Your task to perform on an android device: check storage Image 0: 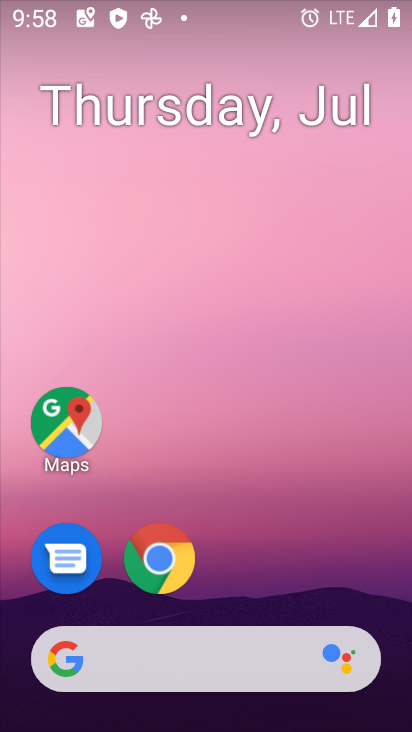
Step 0: drag from (344, 594) to (366, 126)
Your task to perform on an android device: check storage Image 1: 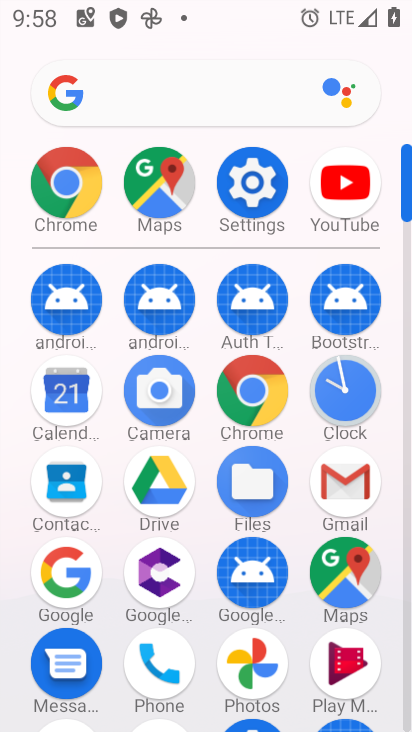
Step 1: click (260, 183)
Your task to perform on an android device: check storage Image 2: 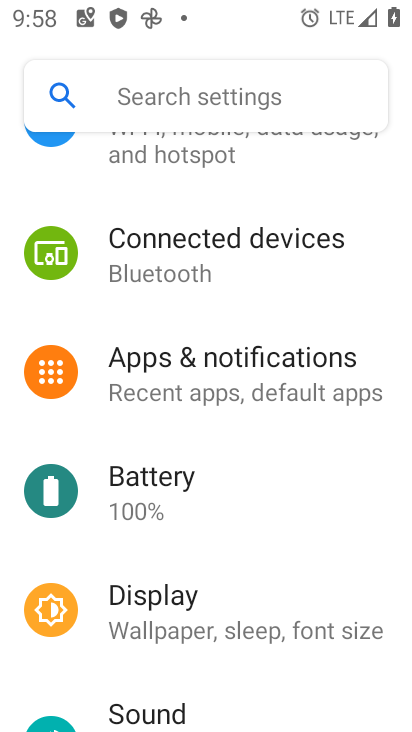
Step 2: drag from (325, 199) to (329, 289)
Your task to perform on an android device: check storage Image 3: 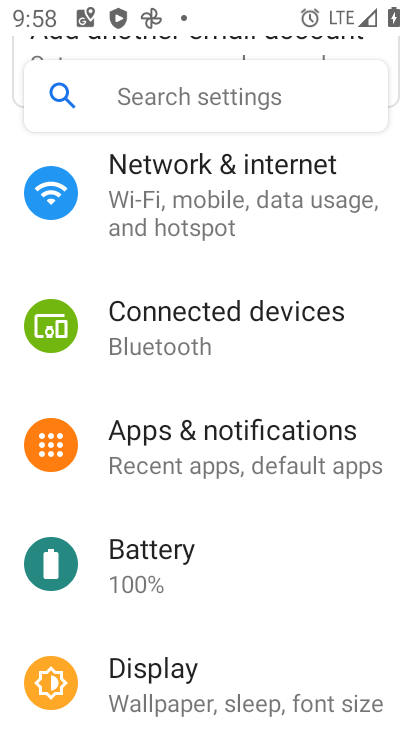
Step 3: drag from (346, 213) to (353, 295)
Your task to perform on an android device: check storage Image 4: 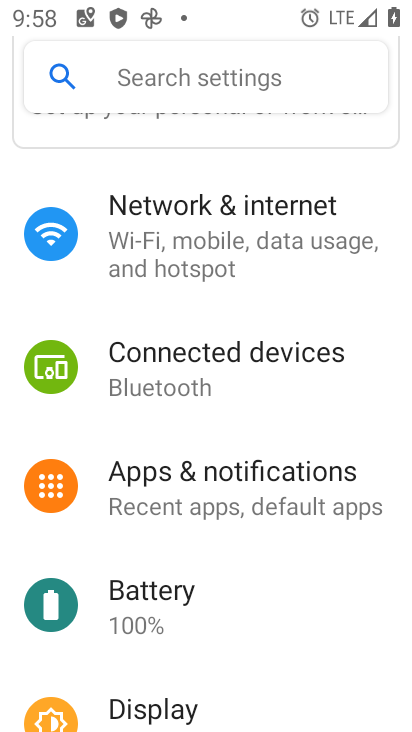
Step 4: drag from (321, 543) to (329, 474)
Your task to perform on an android device: check storage Image 5: 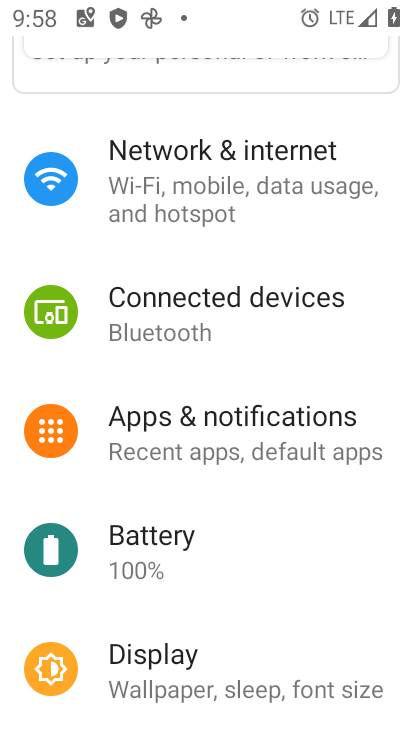
Step 5: drag from (313, 572) to (320, 499)
Your task to perform on an android device: check storage Image 6: 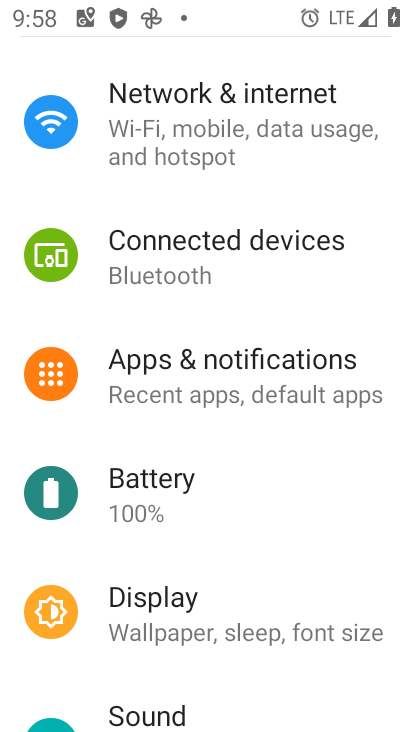
Step 6: drag from (314, 561) to (319, 463)
Your task to perform on an android device: check storage Image 7: 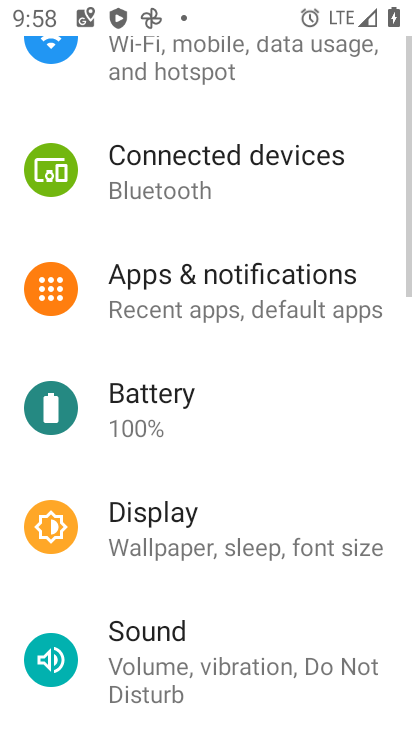
Step 7: drag from (311, 589) to (316, 535)
Your task to perform on an android device: check storage Image 8: 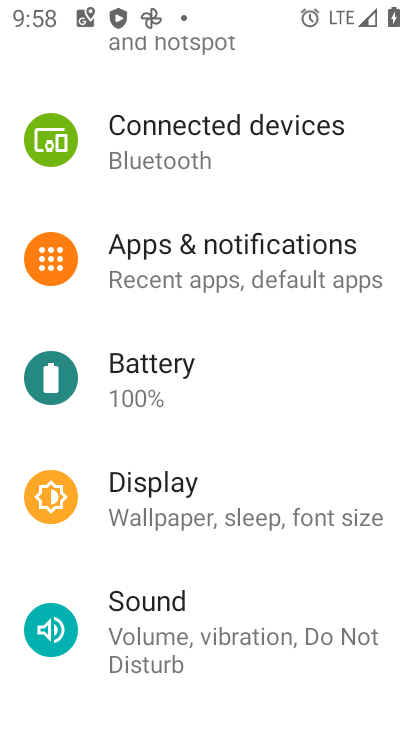
Step 8: drag from (311, 547) to (320, 481)
Your task to perform on an android device: check storage Image 9: 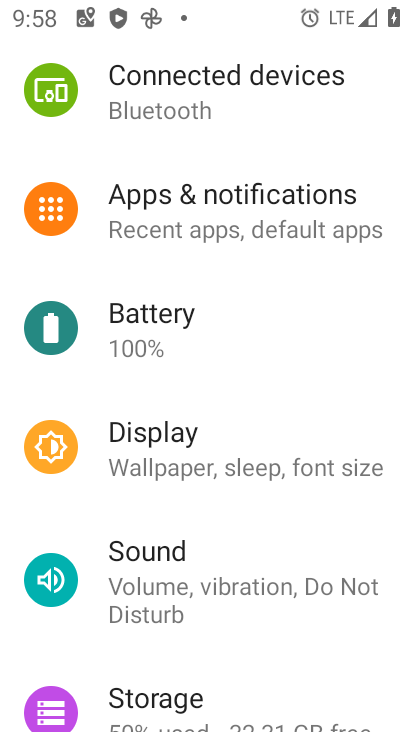
Step 9: click (320, 550)
Your task to perform on an android device: check storage Image 10: 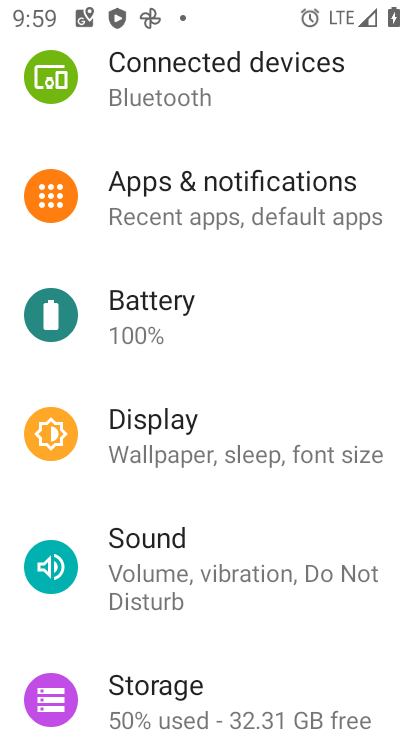
Step 10: drag from (306, 563) to (316, 476)
Your task to perform on an android device: check storage Image 11: 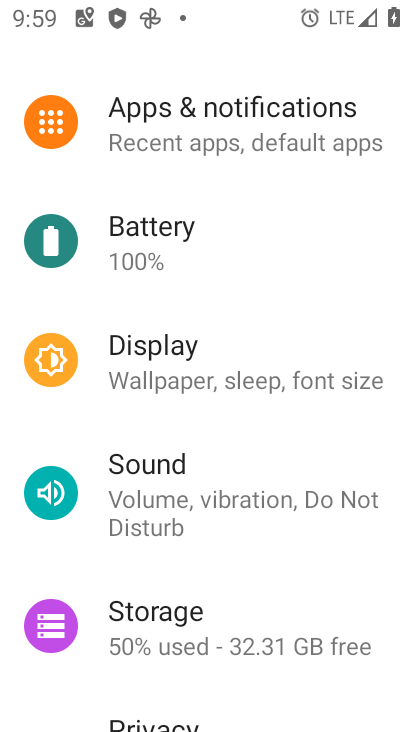
Step 11: click (302, 547)
Your task to perform on an android device: check storage Image 12: 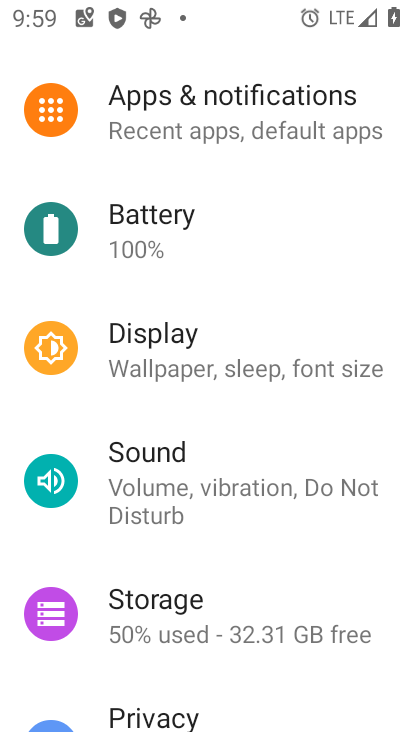
Step 12: click (288, 629)
Your task to perform on an android device: check storage Image 13: 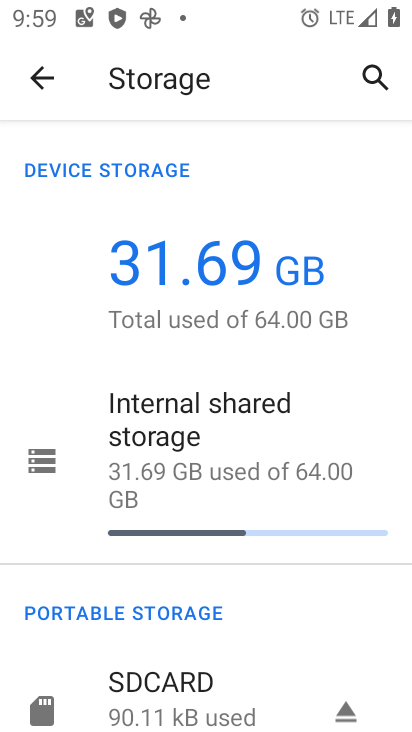
Step 13: task complete